Your task to perform on an android device: Go to Wikipedia Image 0: 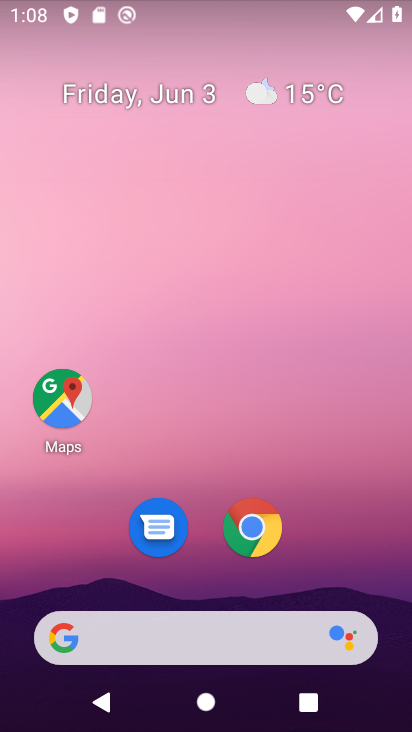
Step 0: click (394, 262)
Your task to perform on an android device: Go to Wikipedia Image 1: 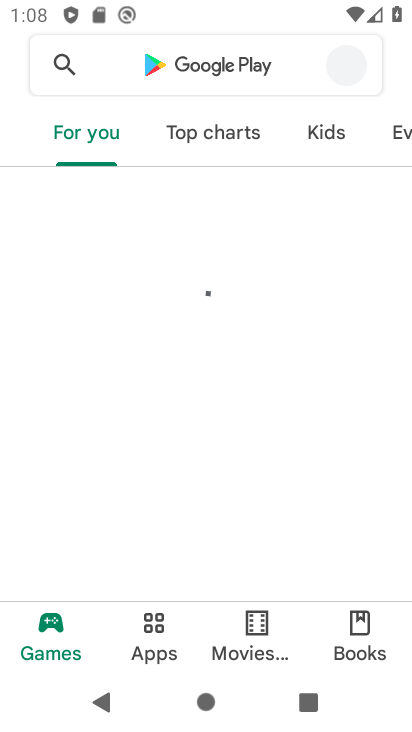
Step 1: press home button
Your task to perform on an android device: Go to Wikipedia Image 2: 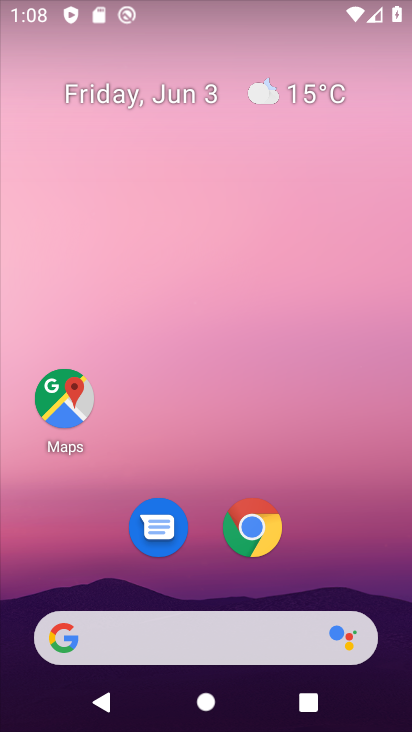
Step 2: click (266, 513)
Your task to perform on an android device: Go to Wikipedia Image 3: 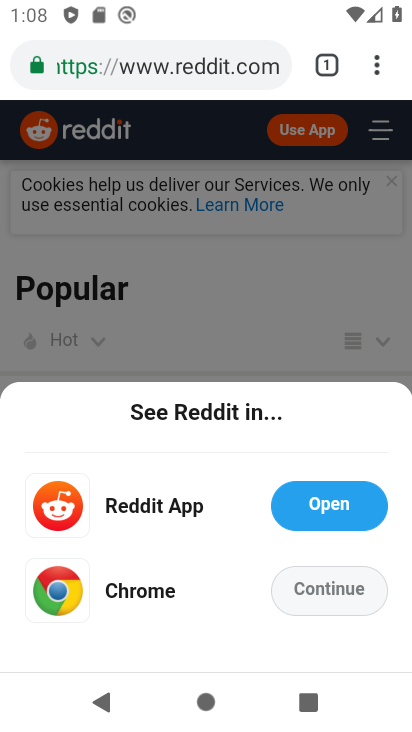
Step 3: click (218, 58)
Your task to perform on an android device: Go to Wikipedia Image 4: 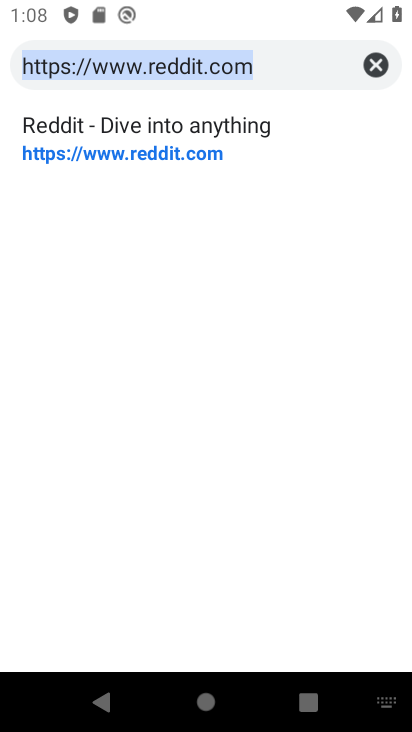
Step 4: click (366, 56)
Your task to perform on an android device: Go to Wikipedia Image 5: 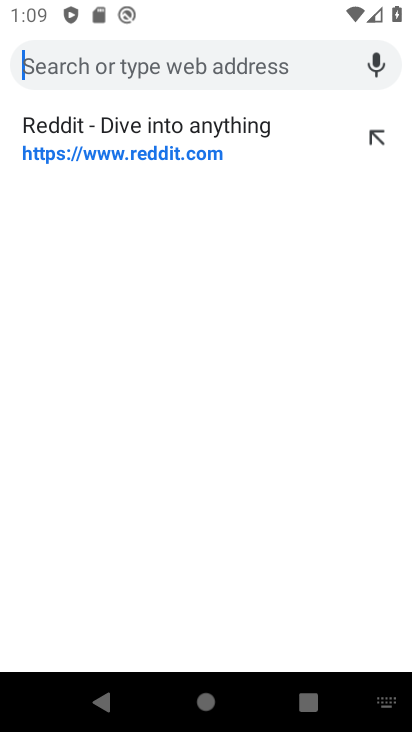
Step 5: type "wiki"
Your task to perform on an android device: Go to Wikipedia Image 6: 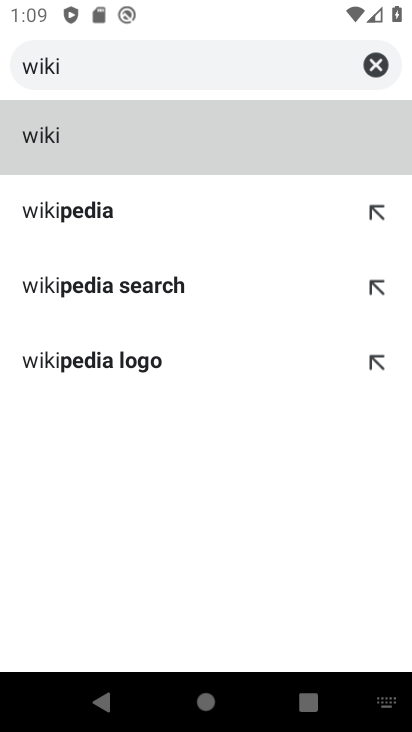
Step 6: click (118, 205)
Your task to perform on an android device: Go to Wikipedia Image 7: 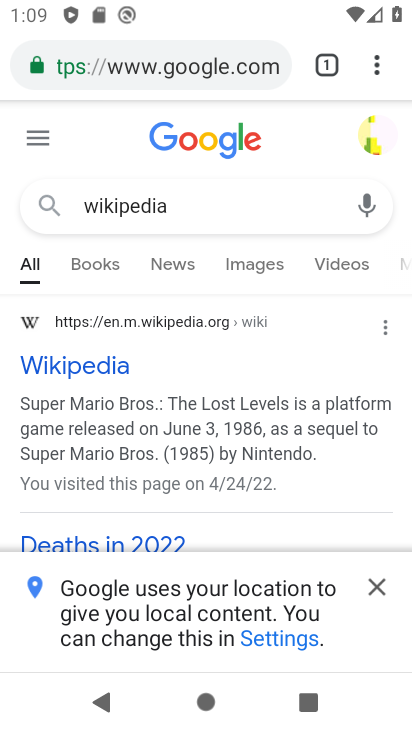
Step 7: click (81, 364)
Your task to perform on an android device: Go to Wikipedia Image 8: 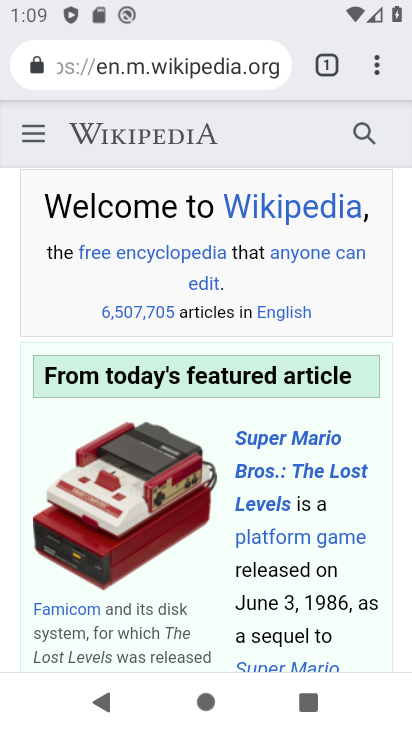
Step 8: task complete